Your task to perform on an android device: find snoozed emails in the gmail app Image 0: 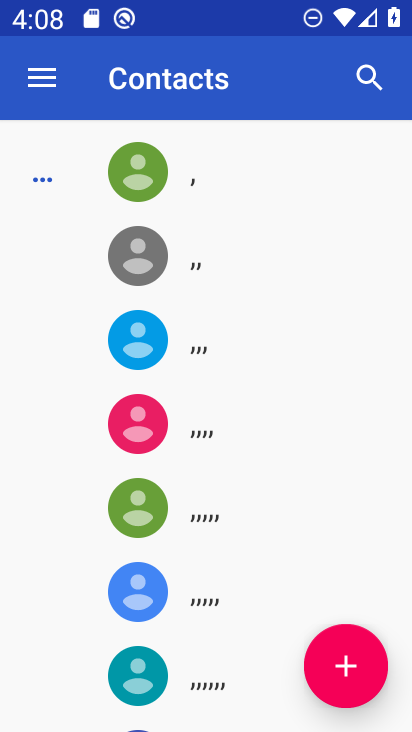
Step 0: press home button
Your task to perform on an android device: find snoozed emails in the gmail app Image 1: 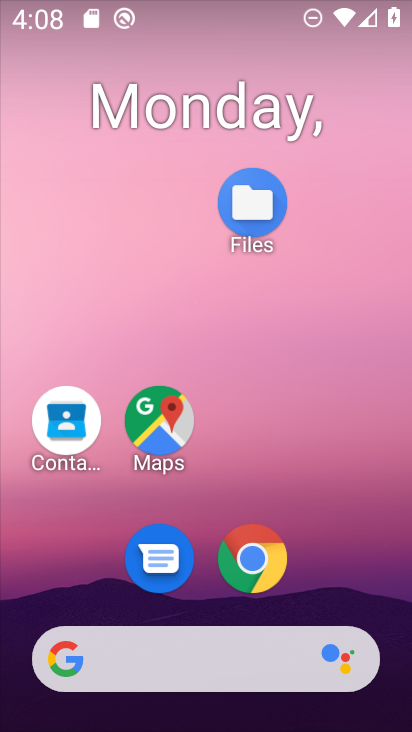
Step 1: drag from (310, 608) to (342, 144)
Your task to perform on an android device: find snoozed emails in the gmail app Image 2: 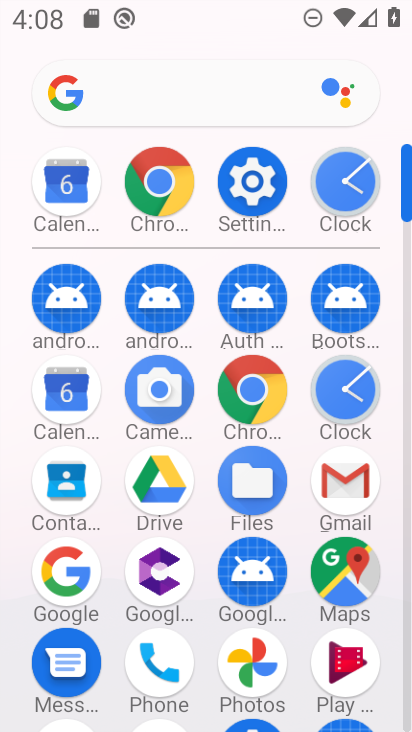
Step 2: click (363, 487)
Your task to perform on an android device: find snoozed emails in the gmail app Image 3: 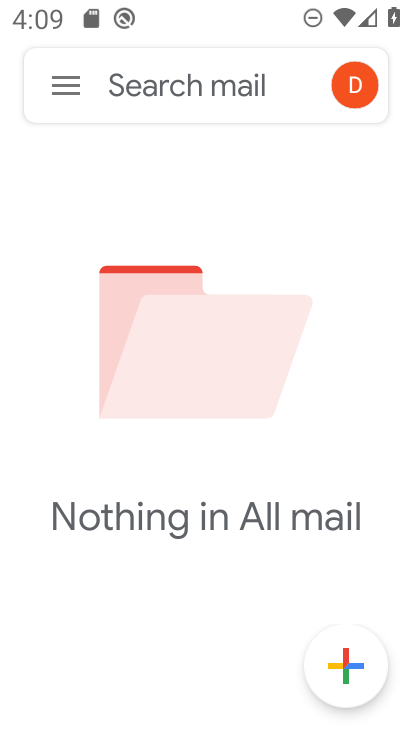
Step 3: click (69, 85)
Your task to perform on an android device: find snoozed emails in the gmail app Image 4: 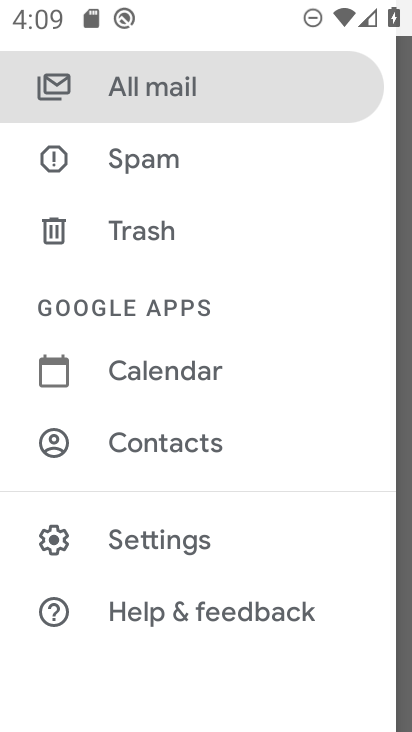
Step 4: drag from (125, 194) to (131, 656)
Your task to perform on an android device: find snoozed emails in the gmail app Image 5: 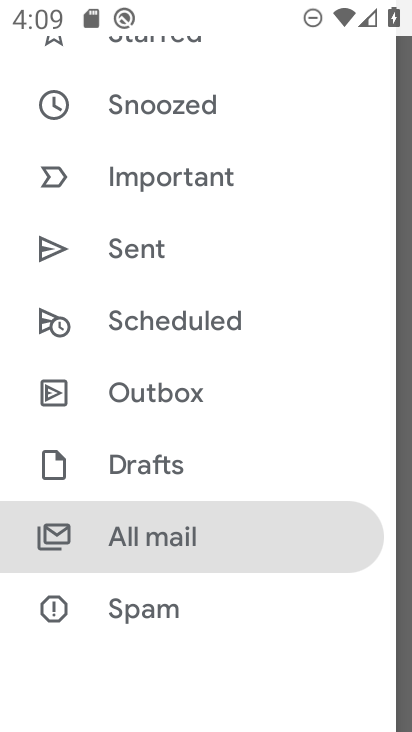
Step 5: click (208, 110)
Your task to perform on an android device: find snoozed emails in the gmail app Image 6: 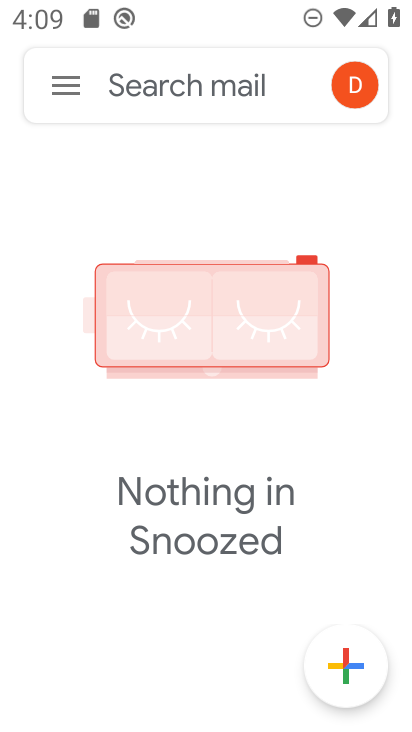
Step 6: task complete